Your task to perform on an android device: all mails in gmail Image 0: 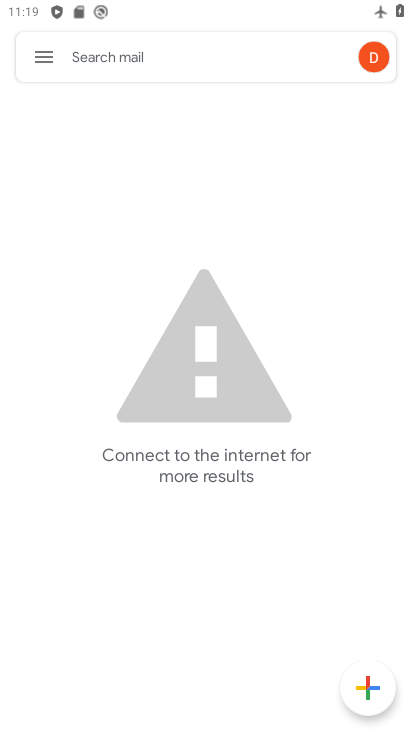
Step 0: click (51, 61)
Your task to perform on an android device: all mails in gmail Image 1: 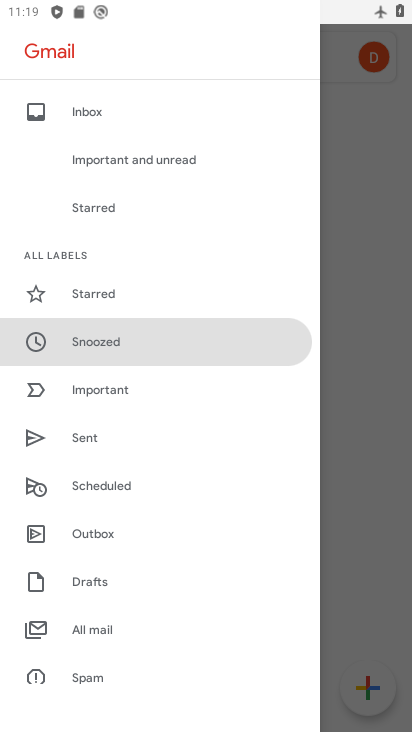
Step 1: click (109, 630)
Your task to perform on an android device: all mails in gmail Image 2: 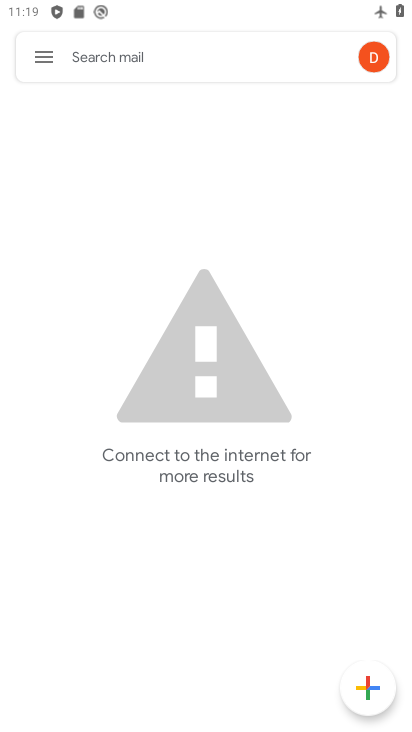
Step 2: task complete